Your task to perform on an android device: turn on showing notifications on the lock screen Image 0: 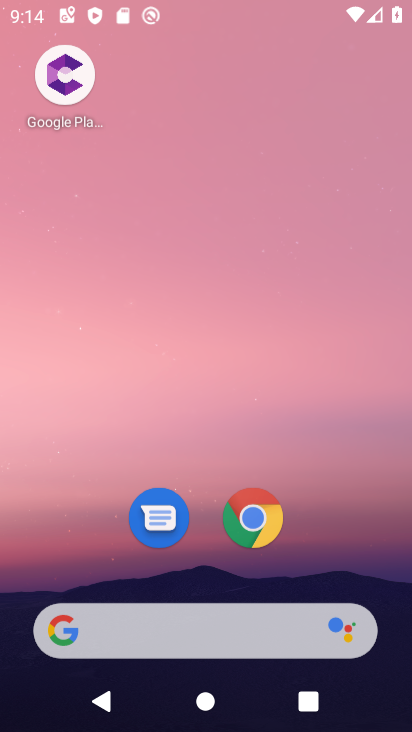
Step 0: press home button
Your task to perform on an android device: turn on showing notifications on the lock screen Image 1: 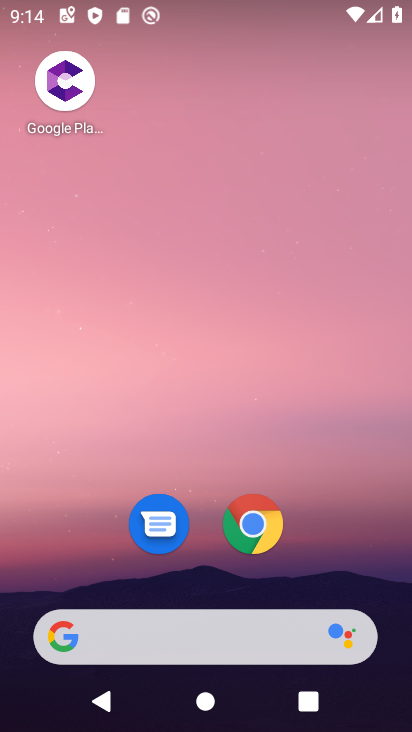
Step 1: drag from (189, 622) to (358, 17)
Your task to perform on an android device: turn on showing notifications on the lock screen Image 2: 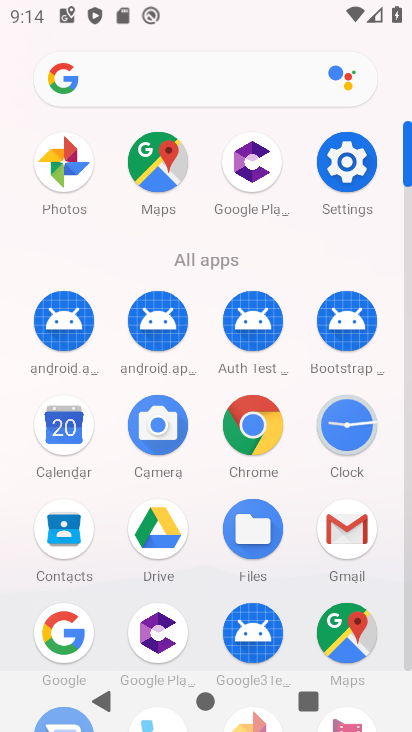
Step 2: click (341, 175)
Your task to perform on an android device: turn on showing notifications on the lock screen Image 3: 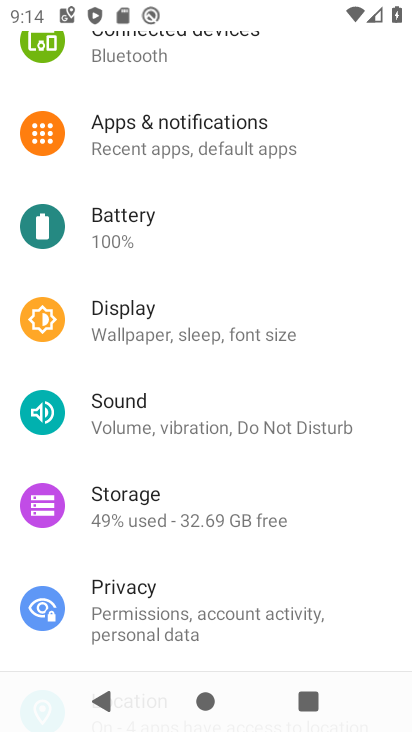
Step 3: click (189, 135)
Your task to perform on an android device: turn on showing notifications on the lock screen Image 4: 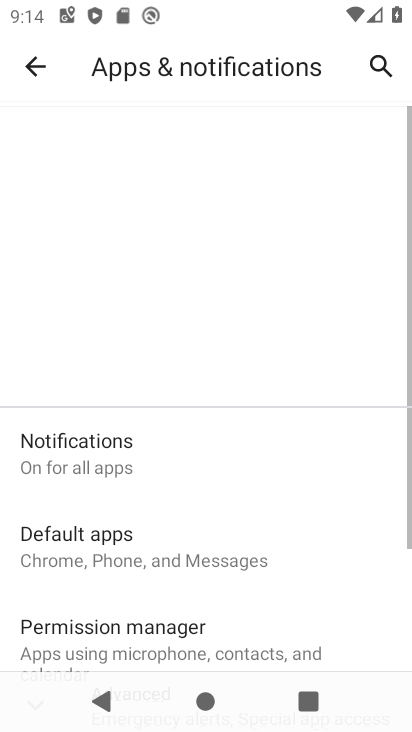
Step 4: click (118, 440)
Your task to perform on an android device: turn on showing notifications on the lock screen Image 5: 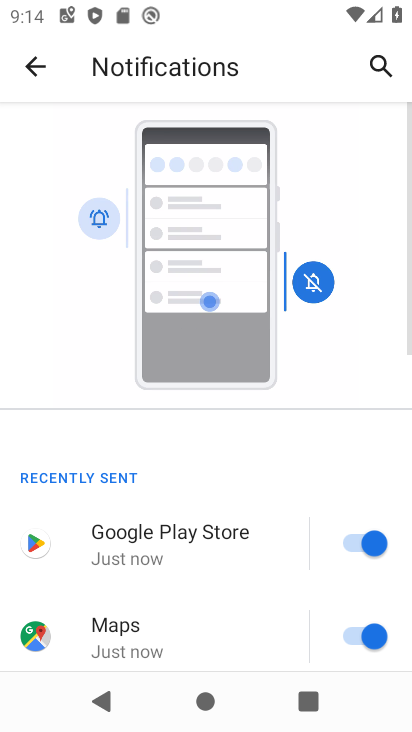
Step 5: drag from (214, 575) to (350, 75)
Your task to perform on an android device: turn on showing notifications on the lock screen Image 6: 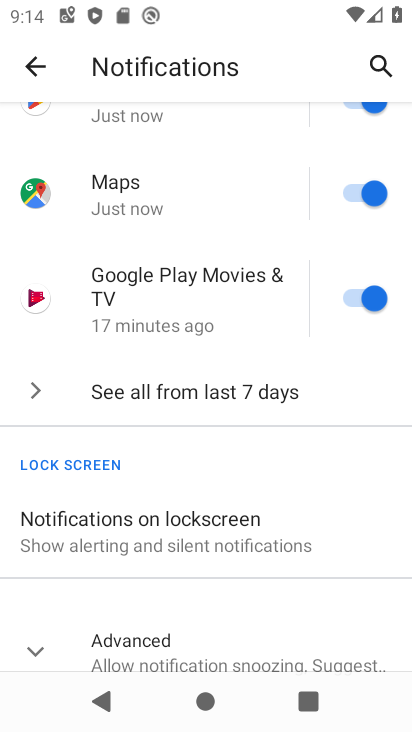
Step 6: click (195, 523)
Your task to perform on an android device: turn on showing notifications on the lock screen Image 7: 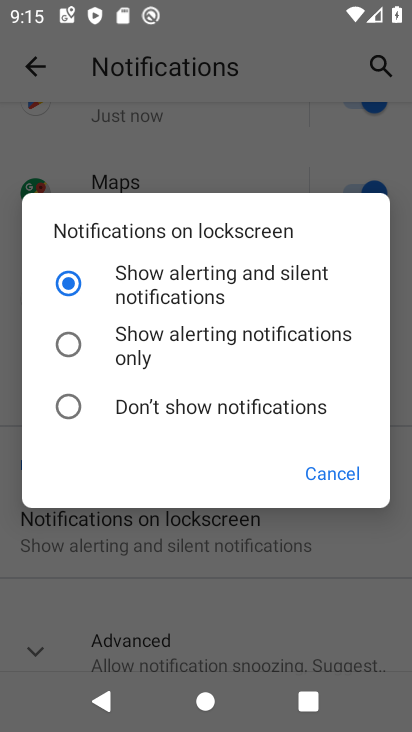
Step 7: task complete